Your task to perform on an android device: Open sound settings Image 0: 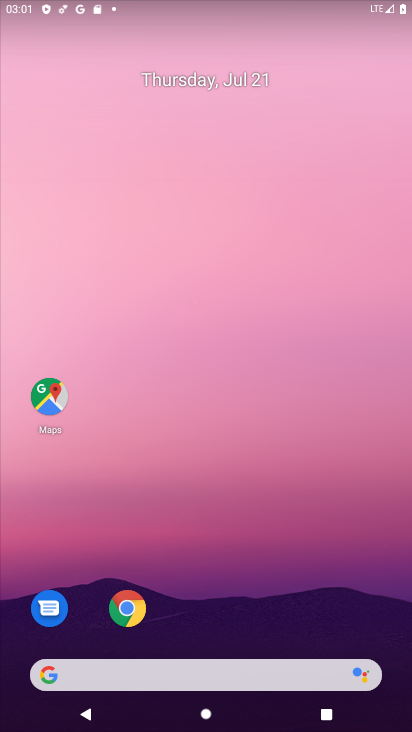
Step 0: drag from (270, 648) to (244, 5)
Your task to perform on an android device: Open sound settings Image 1: 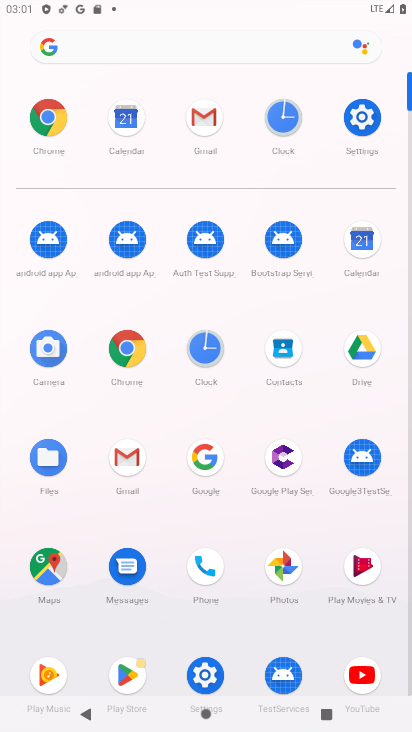
Step 1: click (355, 138)
Your task to perform on an android device: Open sound settings Image 2: 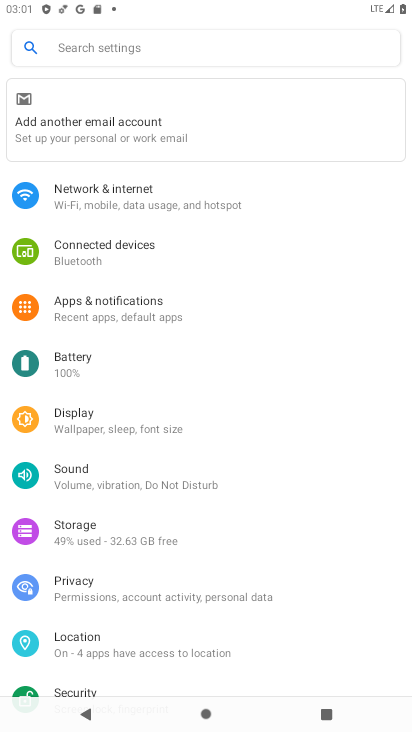
Step 2: click (93, 471)
Your task to perform on an android device: Open sound settings Image 3: 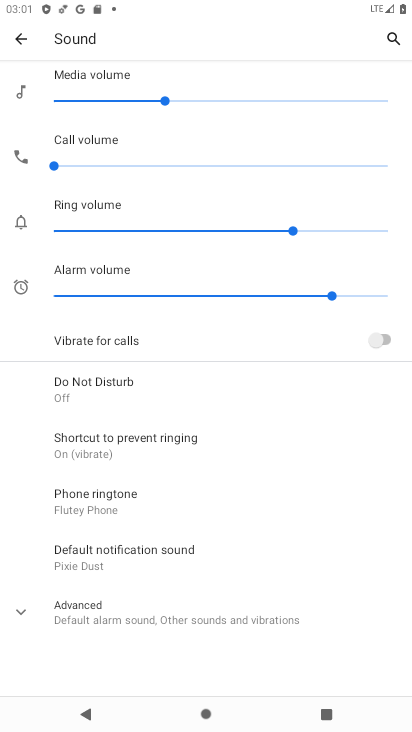
Step 3: click (105, 607)
Your task to perform on an android device: Open sound settings Image 4: 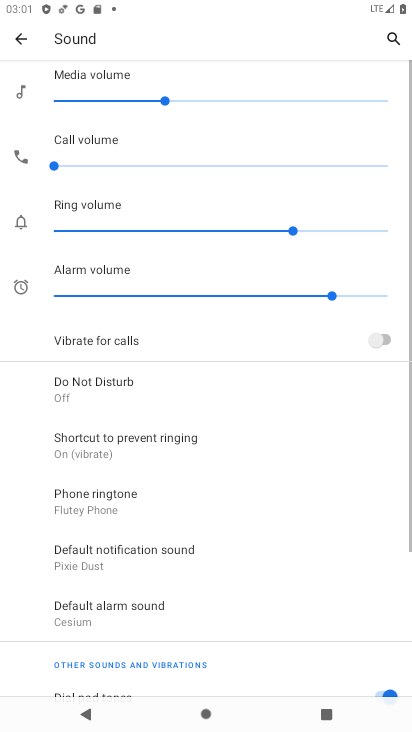
Step 4: task complete